Your task to perform on an android device: Clear the shopping cart on amazon. Add "macbook air" to the cart on amazon, then select checkout. Image 0: 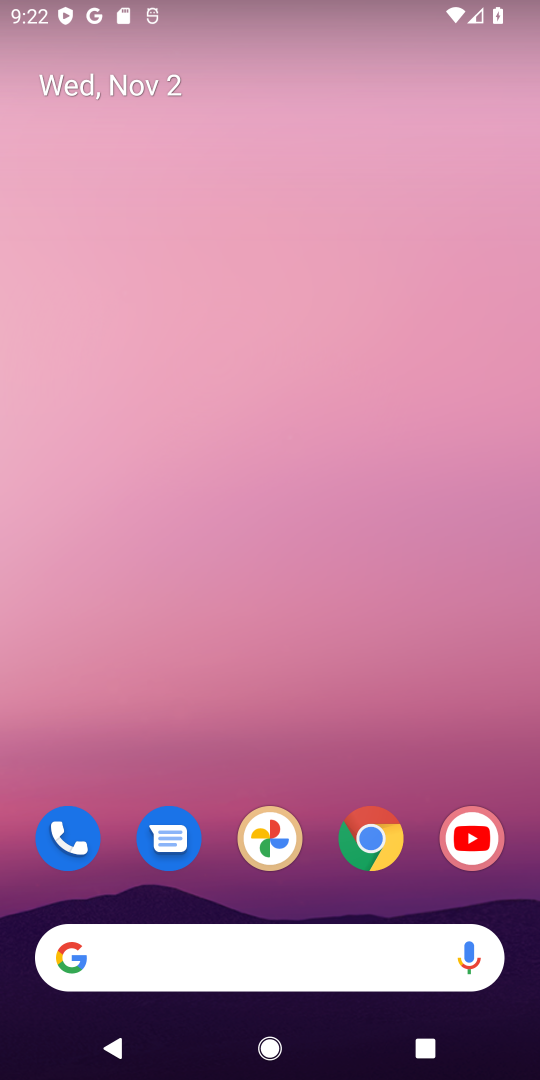
Step 0: click (364, 835)
Your task to perform on an android device: Clear the shopping cart on amazon. Add "macbook air" to the cart on amazon, then select checkout. Image 1: 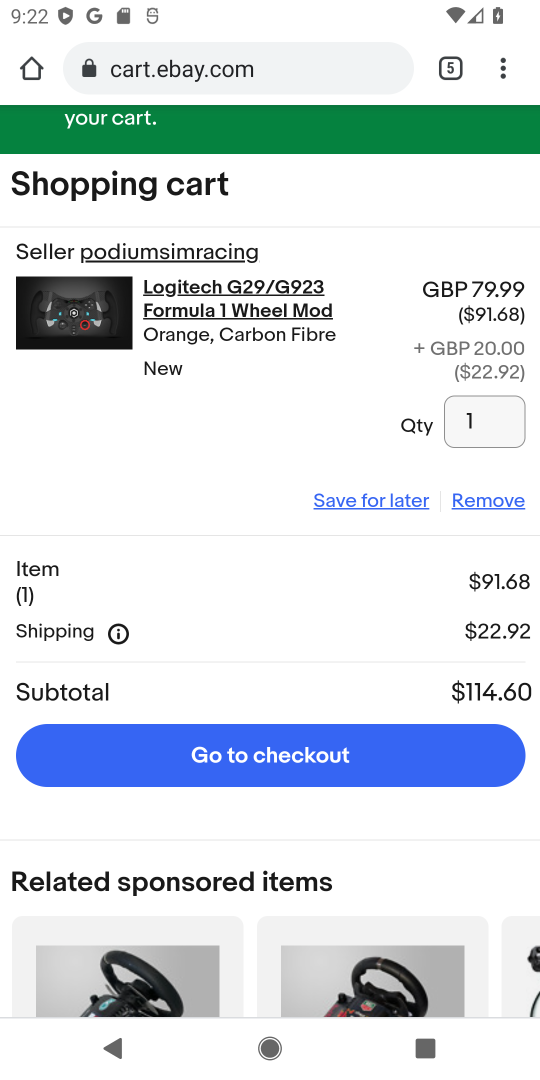
Step 1: click (436, 79)
Your task to perform on an android device: Clear the shopping cart on amazon. Add "macbook air" to the cart on amazon, then select checkout. Image 2: 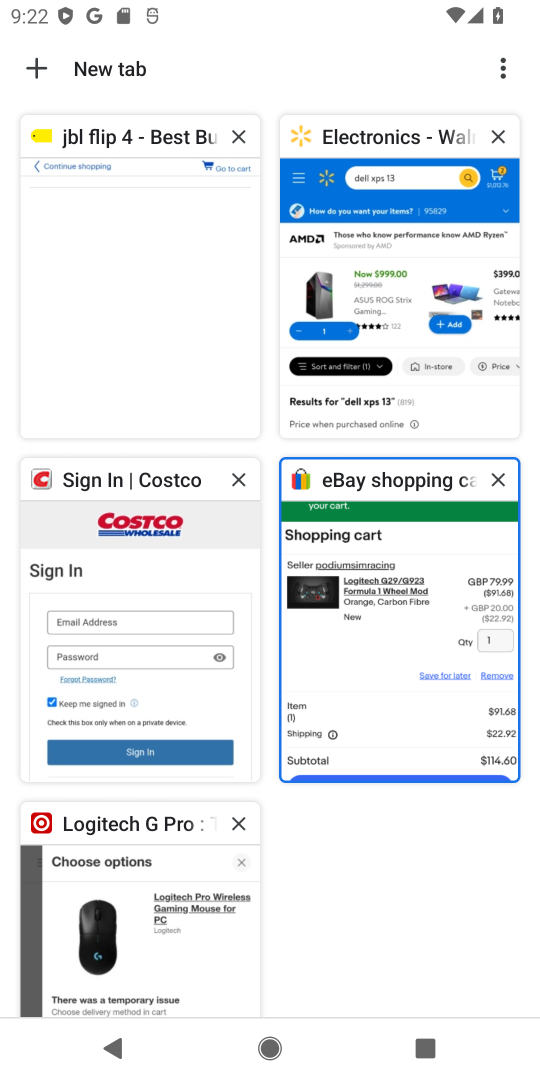
Step 2: click (43, 76)
Your task to perform on an android device: Clear the shopping cart on amazon. Add "macbook air" to the cart on amazon, then select checkout. Image 3: 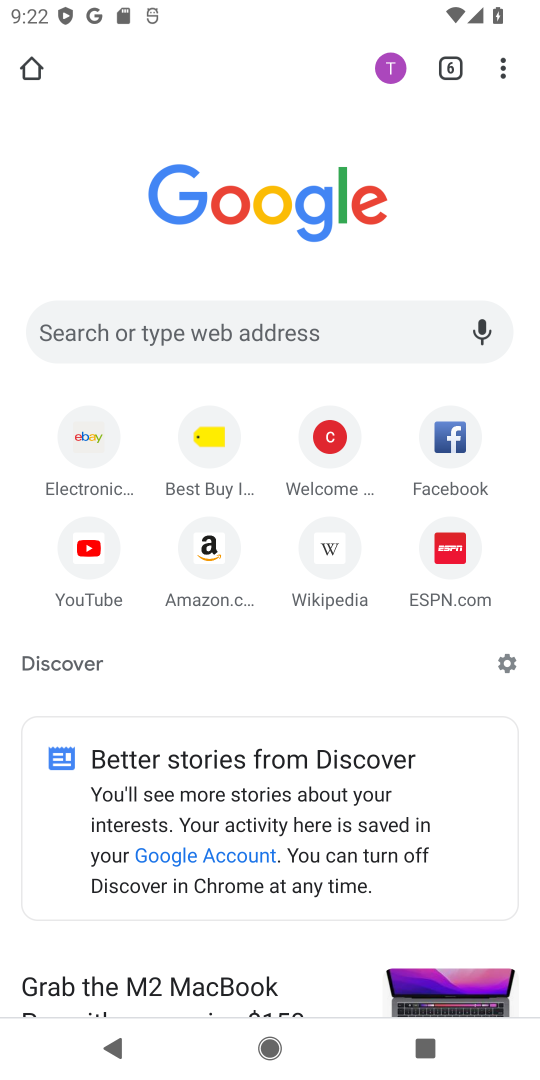
Step 3: click (212, 559)
Your task to perform on an android device: Clear the shopping cart on amazon. Add "macbook air" to the cart on amazon, then select checkout. Image 4: 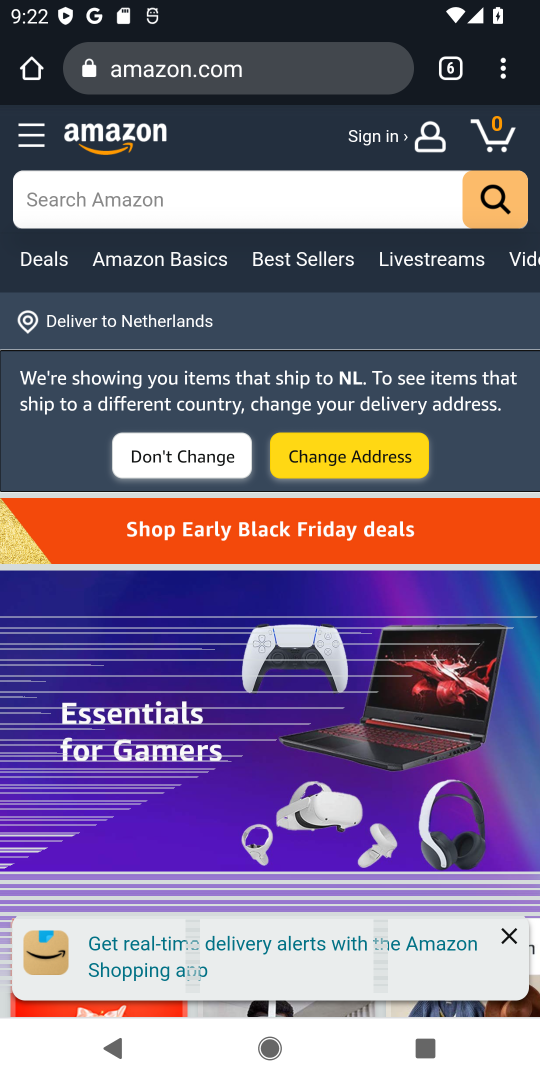
Step 4: click (173, 214)
Your task to perform on an android device: Clear the shopping cart on amazon. Add "macbook air" to the cart on amazon, then select checkout. Image 5: 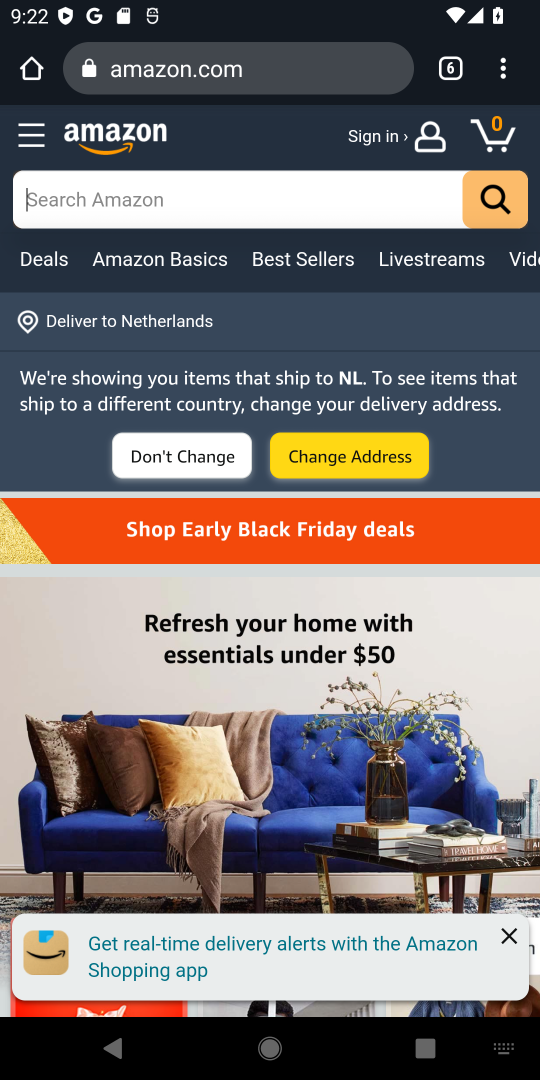
Step 5: type "macbook air"
Your task to perform on an android device: Clear the shopping cart on amazon. Add "macbook air" to the cart on amazon, then select checkout. Image 6: 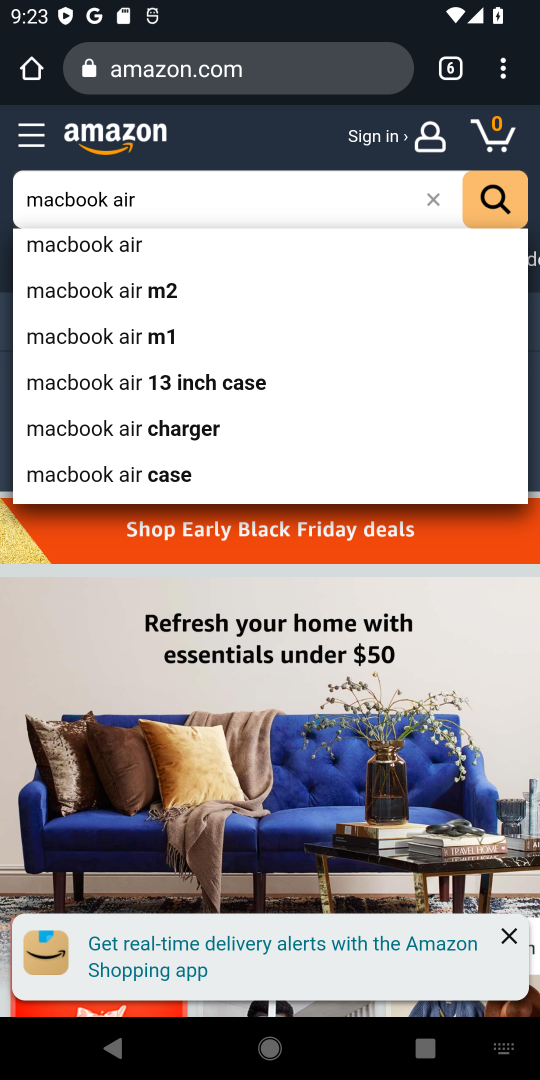
Step 6: click (53, 247)
Your task to perform on an android device: Clear the shopping cart on amazon. Add "macbook air" to the cart on amazon, then select checkout. Image 7: 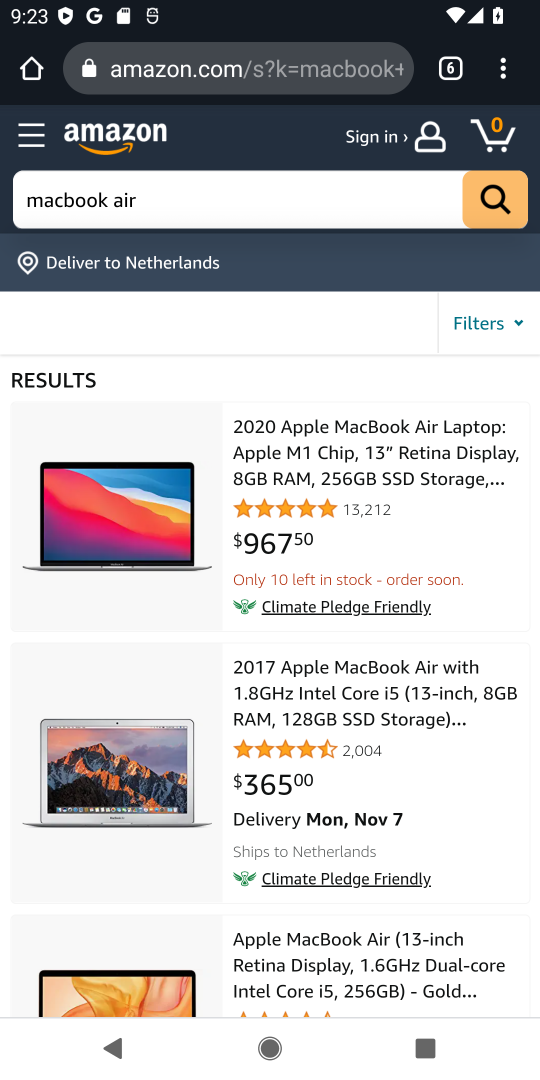
Step 7: click (296, 446)
Your task to perform on an android device: Clear the shopping cart on amazon. Add "macbook air" to the cart on amazon, then select checkout. Image 8: 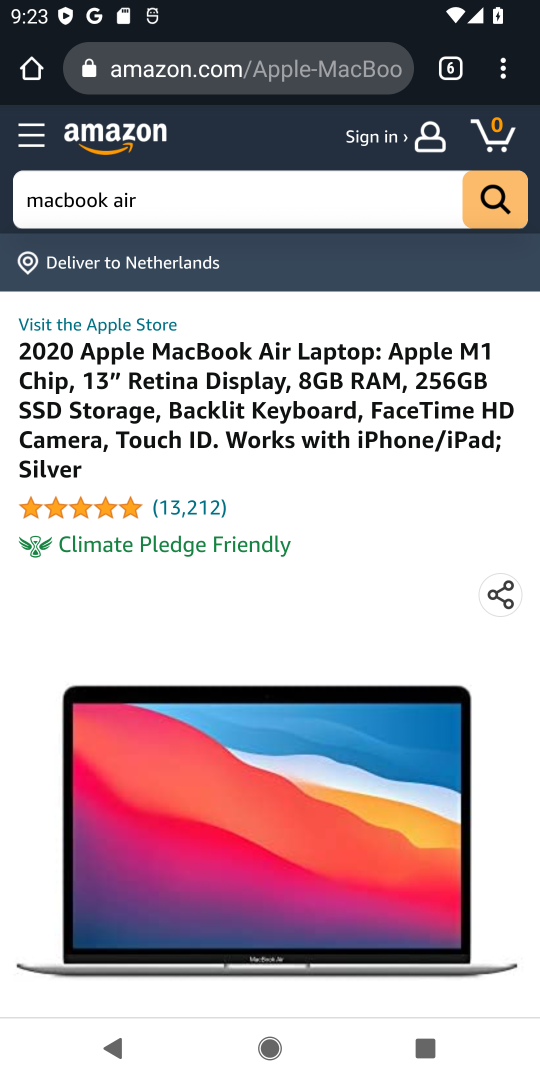
Step 8: drag from (29, 908) to (114, 326)
Your task to perform on an android device: Clear the shopping cart on amazon. Add "macbook air" to the cart on amazon, then select checkout. Image 9: 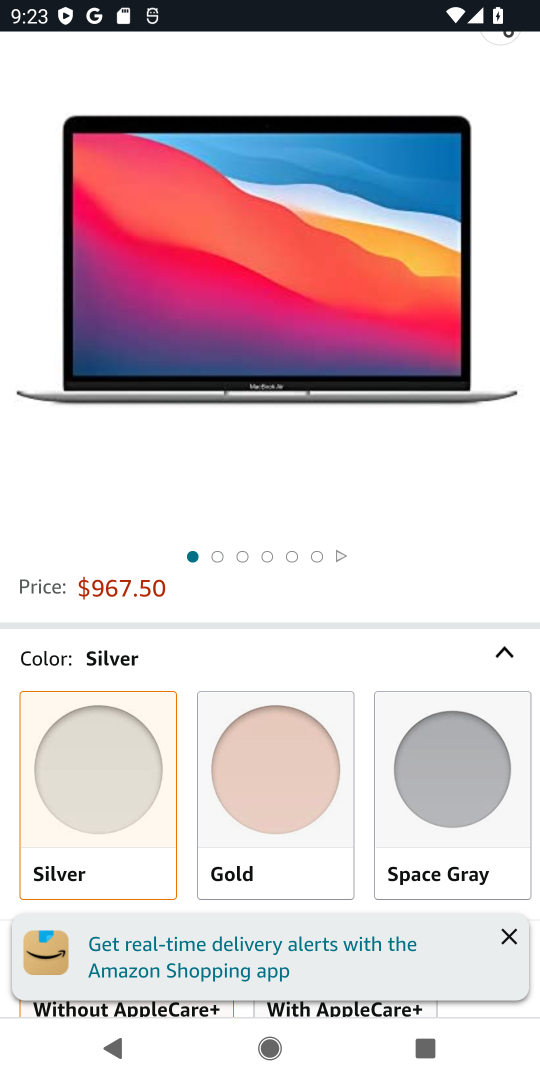
Step 9: drag from (229, 863) to (241, 85)
Your task to perform on an android device: Clear the shopping cart on amazon. Add "macbook air" to the cart on amazon, then select checkout. Image 10: 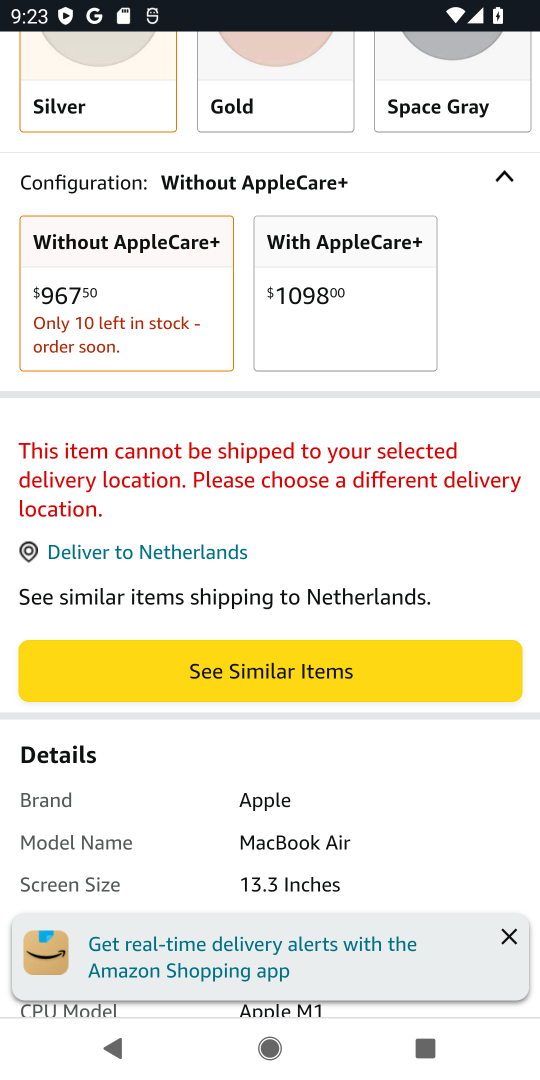
Step 10: click (298, 661)
Your task to perform on an android device: Clear the shopping cart on amazon. Add "macbook air" to the cart on amazon, then select checkout. Image 11: 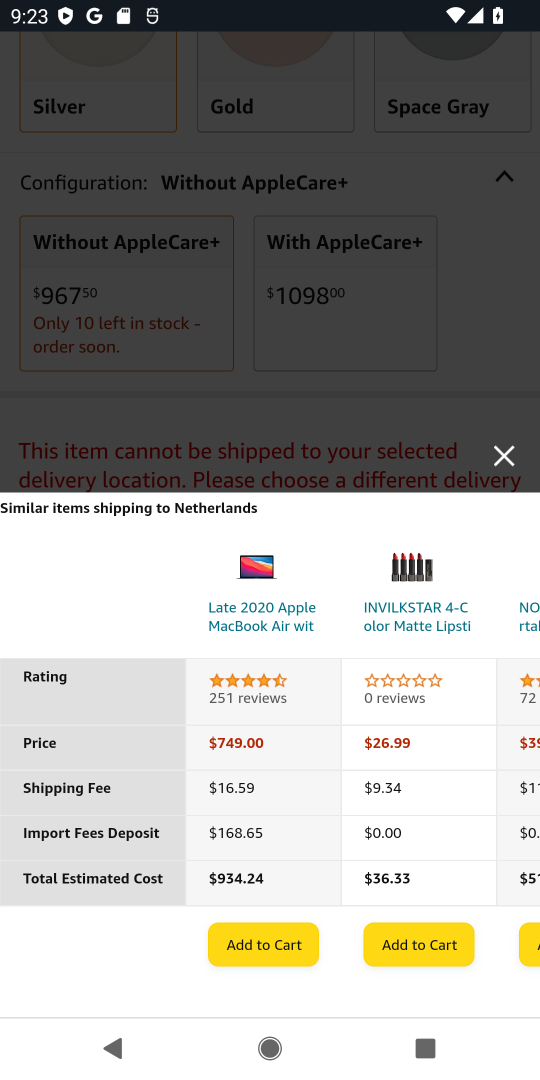
Step 11: click (254, 940)
Your task to perform on an android device: Clear the shopping cart on amazon. Add "macbook air" to the cart on amazon, then select checkout. Image 12: 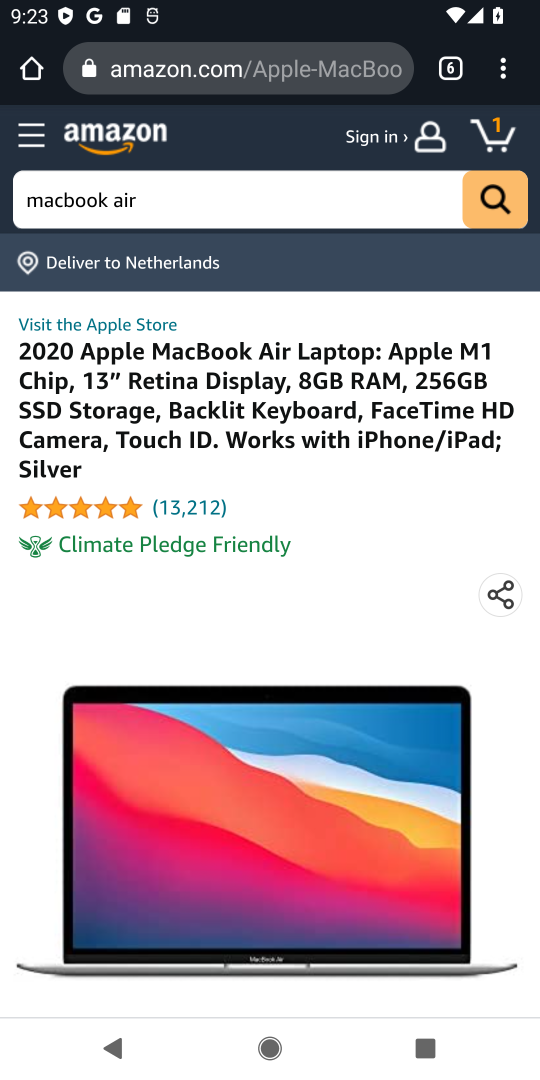
Step 12: click (502, 141)
Your task to perform on an android device: Clear the shopping cart on amazon. Add "macbook air" to the cart on amazon, then select checkout. Image 13: 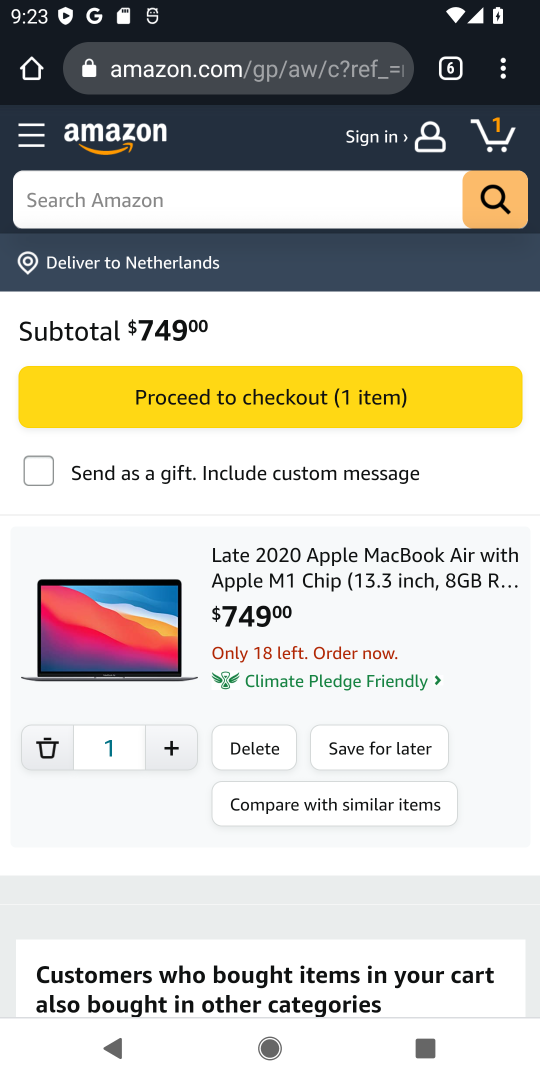
Step 13: click (342, 401)
Your task to perform on an android device: Clear the shopping cart on amazon. Add "macbook air" to the cart on amazon, then select checkout. Image 14: 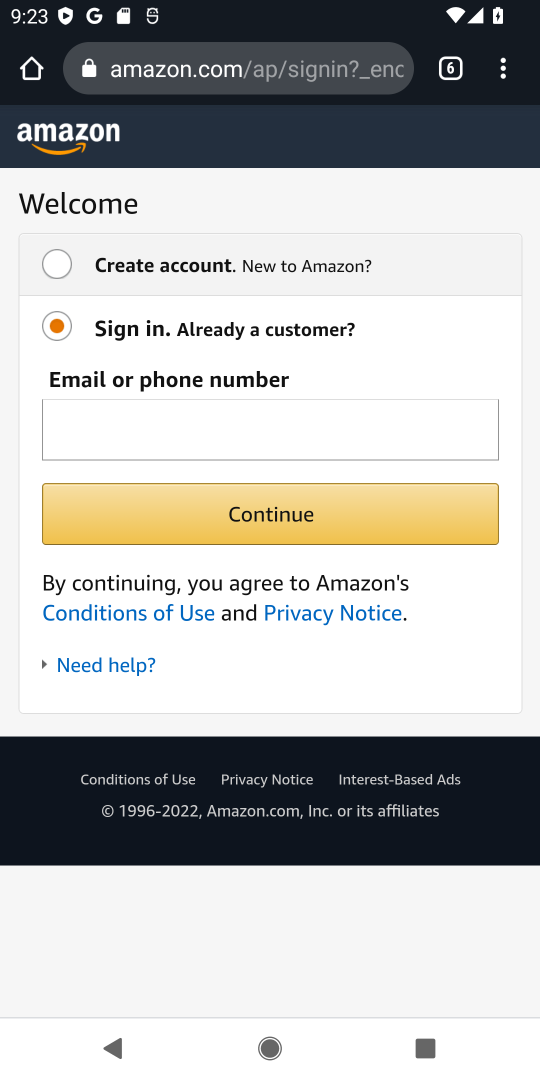
Step 14: task complete